Your task to perform on an android device: change notification settings in the gmail app Image 0: 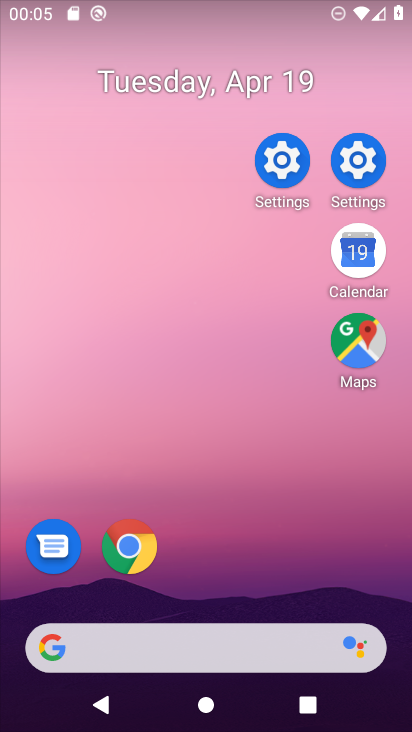
Step 0: drag from (336, 698) to (188, 63)
Your task to perform on an android device: change notification settings in the gmail app Image 1: 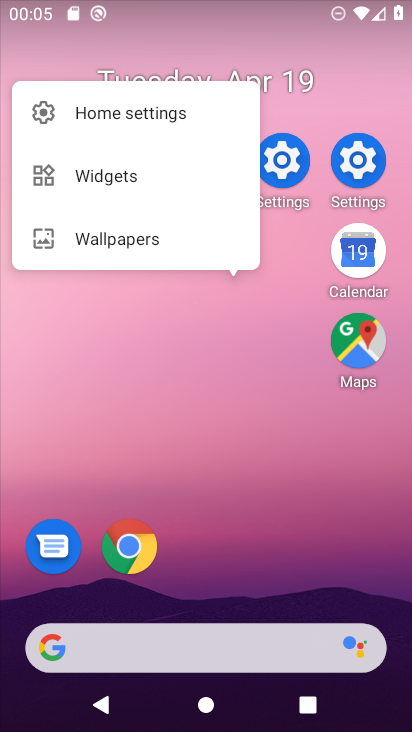
Step 1: drag from (277, 366) to (160, 63)
Your task to perform on an android device: change notification settings in the gmail app Image 2: 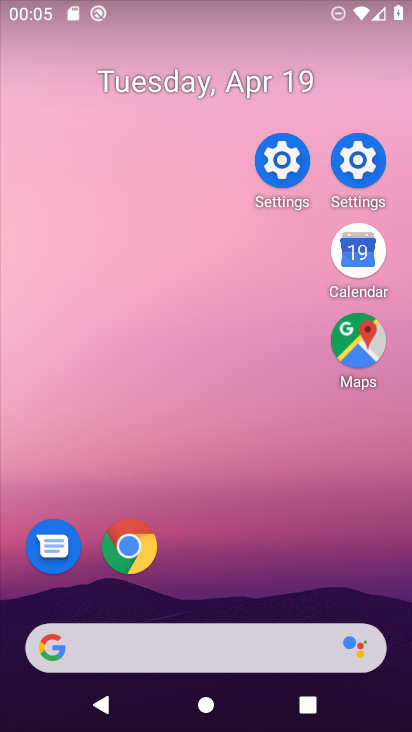
Step 2: drag from (290, 577) to (137, 47)
Your task to perform on an android device: change notification settings in the gmail app Image 3: 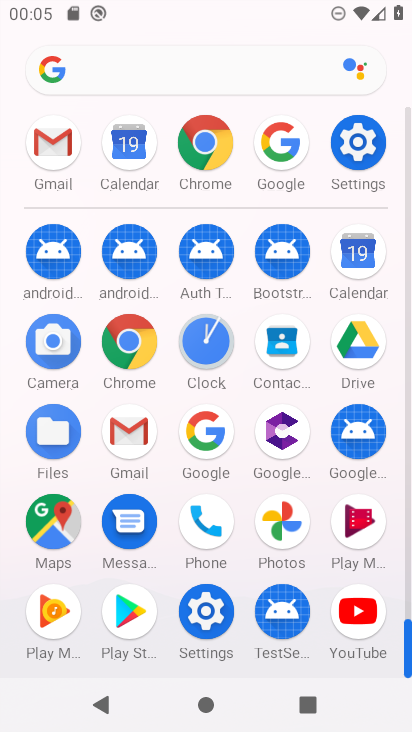
Step 3: click (113, 424)
Your task to perform on an android device: change notification settings in the gmail app Image 4: 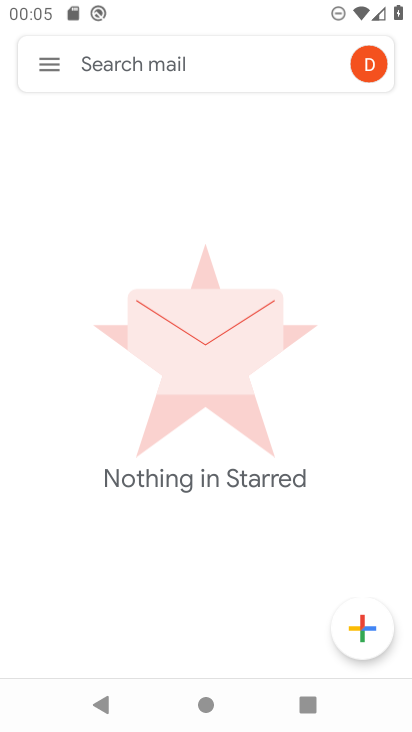
Step 4: click (46, 61)
Your task to perform on an android device: change notification settings in the gmail app Image 5: 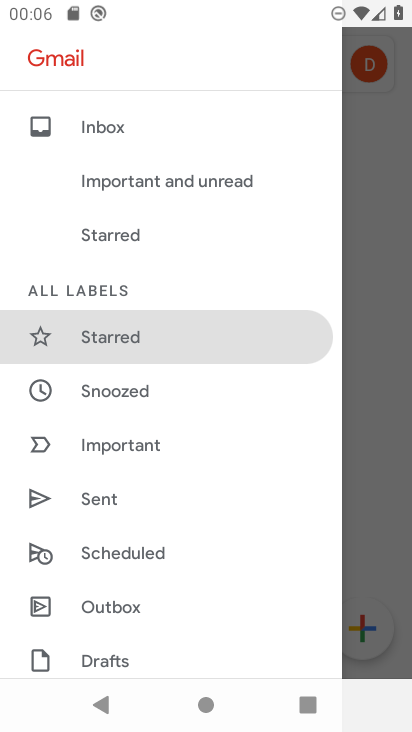
Step 5: drag from (139, 385) to (262, 184)
Your task to perform on an android device: change notification settings in the gmail app Image 6: 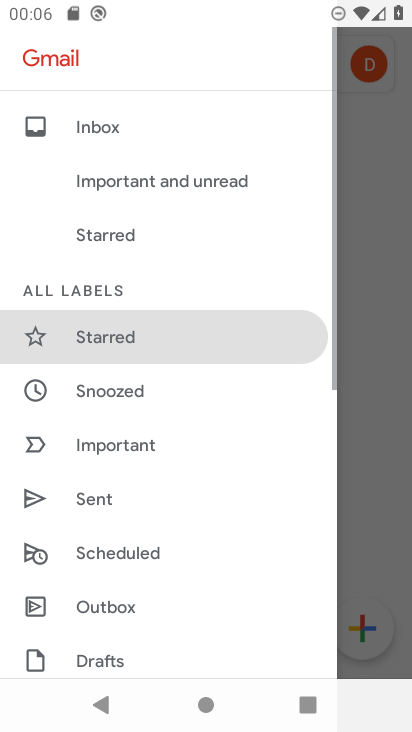
Step 6: drag from (300, 422) to (208, 97)
Your task to perform on an android device: change notification settings in the gmail app Image 7: 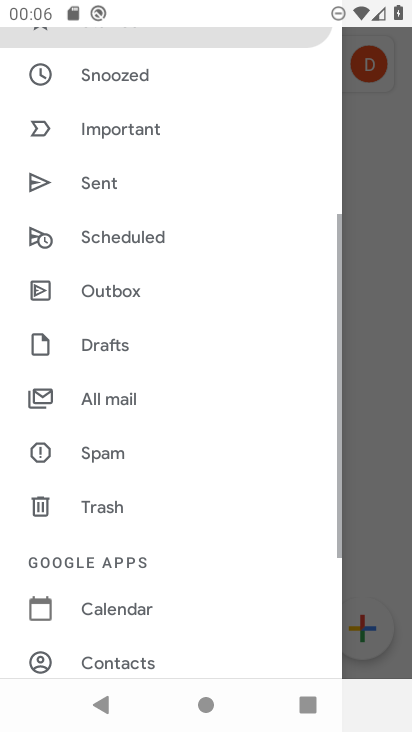
Step 7: drag from (144, 500) to (166, 205)
Your task to perform on an android device: change notification settings in the gmail app Image 8: 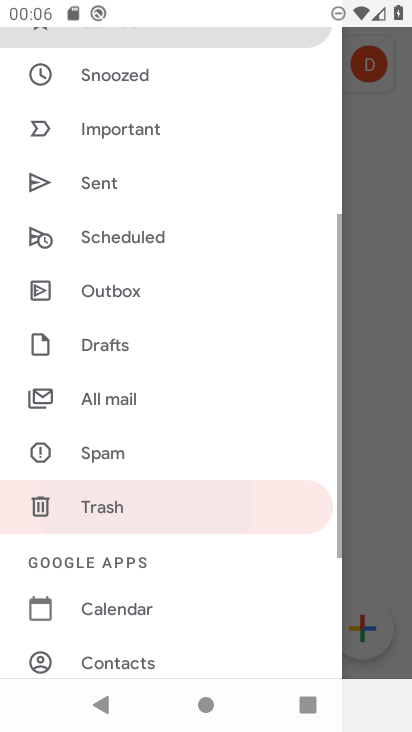
Step 8: drag from (189, 293) to (189, 129)
Your task to perform on an android device: change notification settings in the gmail app Image 9: 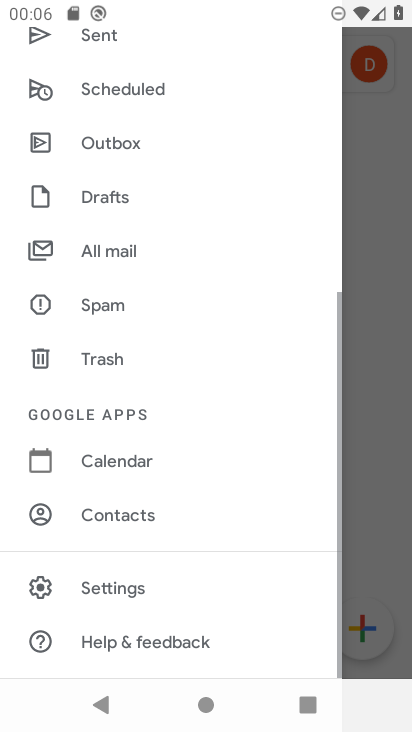
Step 9: click (119, 577)
Your task to perform on an android device: change notification settings in the gmail app Image 10: 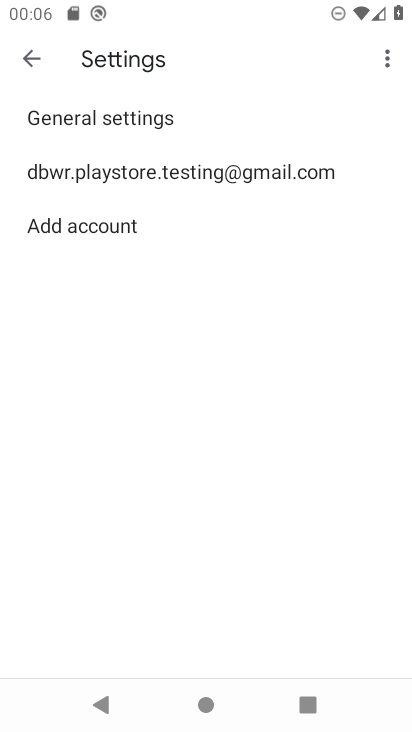
Step 10: click (123, 167)
Your task to perform on an android device: change notification settings in the gmail app Image 11: 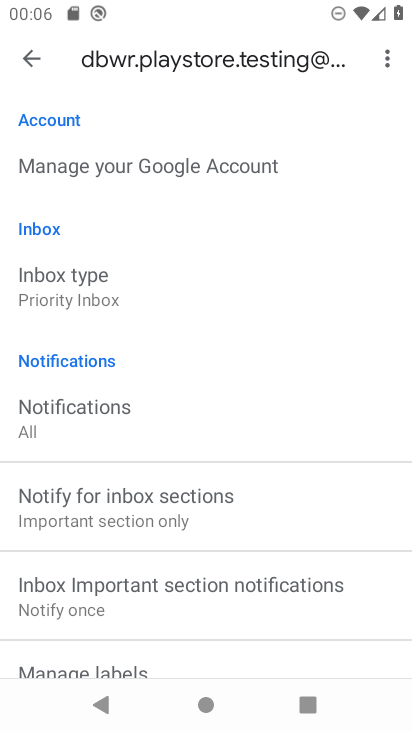
Step 11: click (54, 397)
Your task to perform on an android device: change notification settings in the gmail app Image 12: 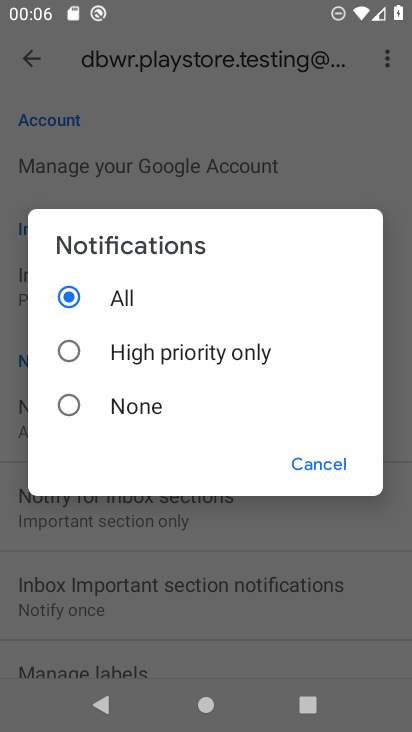
Step 12: click (66, 400)
Your task to perform on an android device: change notification settings in the gmail app Image 13: 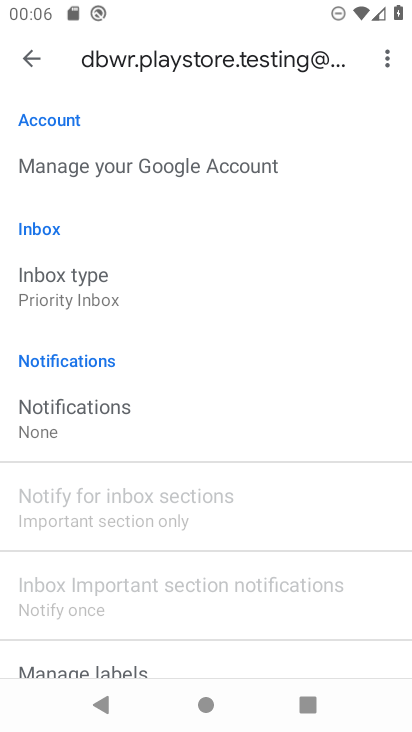
Step 13: task complete